Your task to perform on an android device: turn on airplane mode Image 0: 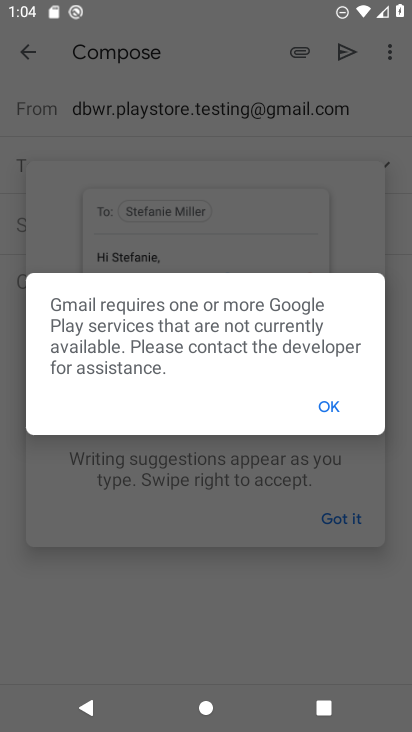
Step 0: press home button
Your task to perform on an android device: turn on airplane mode Image 1: 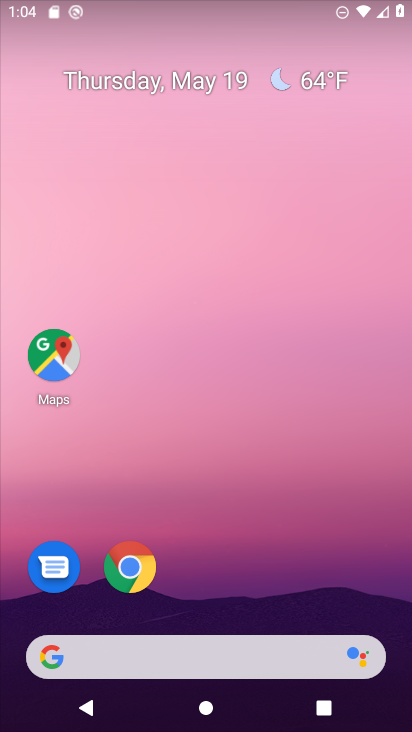
Step 1: drag from (266, 604) to (279, 174)
Your task to perform on an android device: turn on airplane mode Image 2: 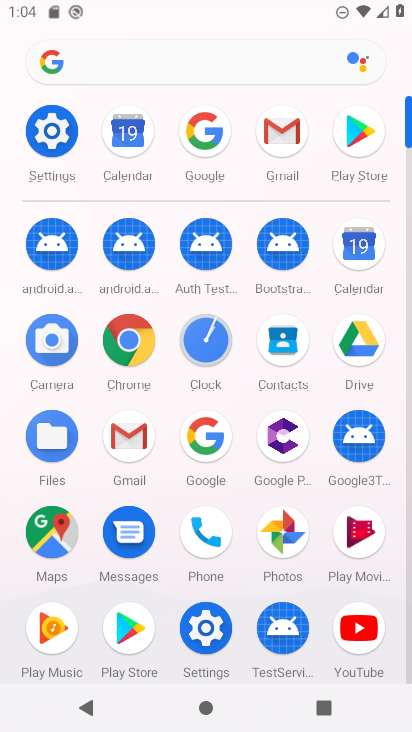
Step 2: click (54, 142)
Your task to perform on an android device: turn on airplane mode Image 3: 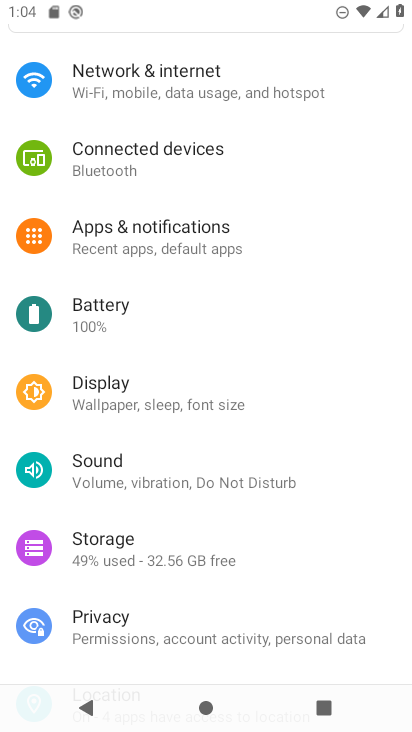
Step 3: click (186, 94)
Your task to perform on an android device: turn on airplane mode Image 4: 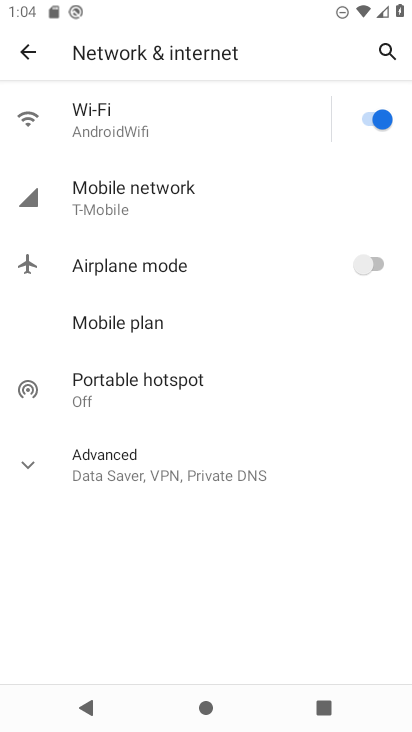
Step 4: click (378, 264)
Your task to perform on an android device: turn on airplane mode Image 5: 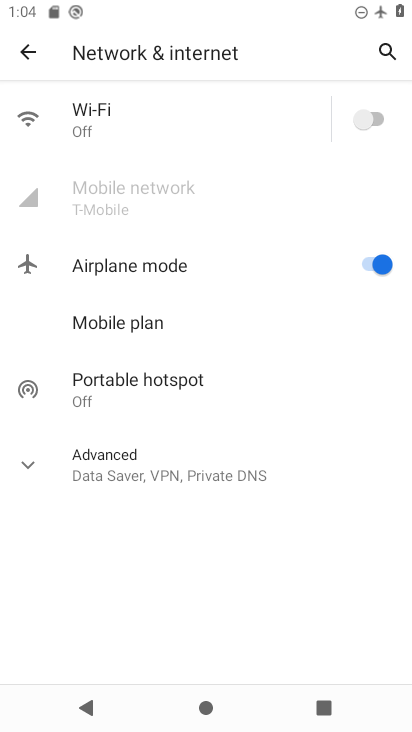
Step 5: task complete